Your task to perform on an android device: toggle improve location accuracy Image 0: 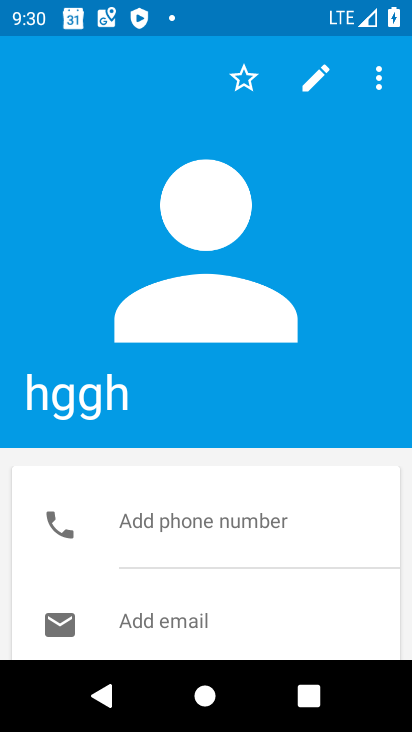
Step 0: press home button
Your task to perform on an android device: toggle improve location accuracy Image 1: 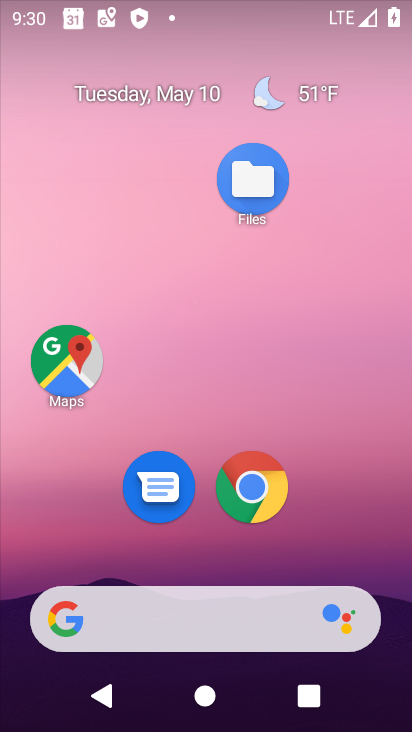
Step 1: drag from (208, 535) to (238, 111)
Your task to perform on an android device: toggle improve location accuracy Image 2: 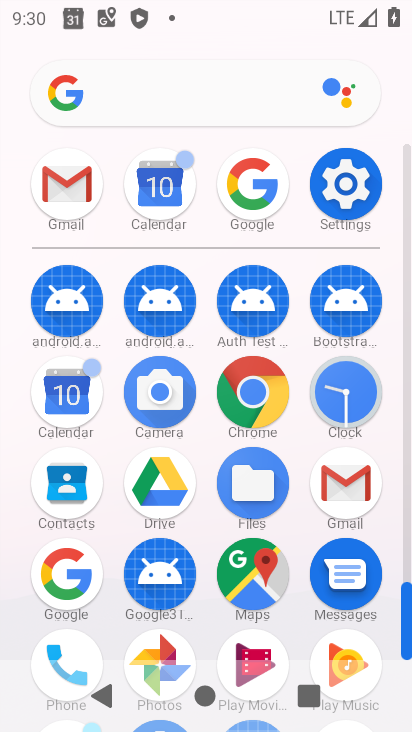
Step 2: click (341, 184)
Your task to perform on an android device: toggle improve location accuracy Image 3: 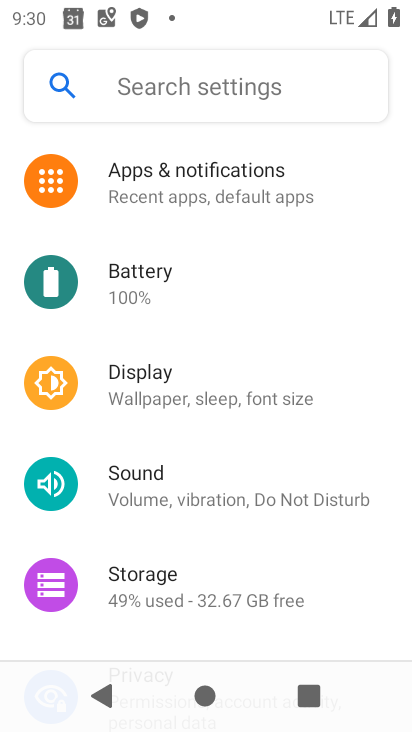
Step 3: drag from (211, 579) to (240, 192)
Your task to perform on an android device: toggle improve location accuracy Image 4: 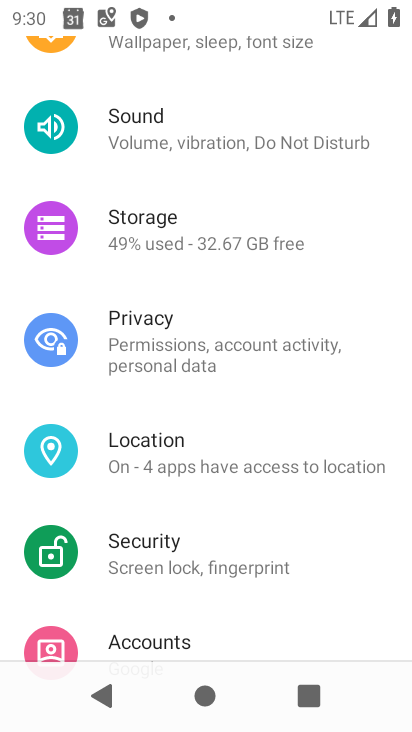
Step 4: click (182, 446)
Your task to perform on an android device: toggle improve location accuracy Image 5: 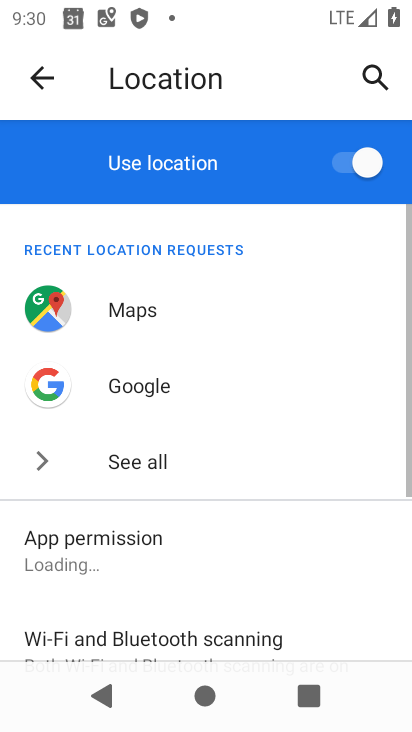
Step 5: drag from (215, 526) to (226, 194)
Your task to perform on an android device: toggle improve location accuracy Image 6: 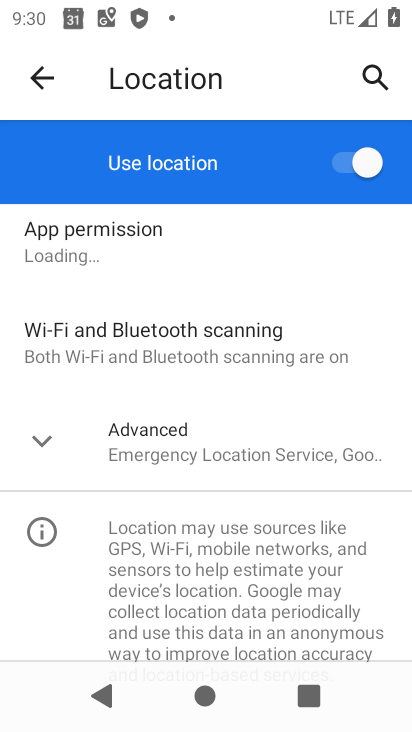
Step 6: click (148, 437)
Your task to perform on an android device: toggle improve location accuracy Image 7: 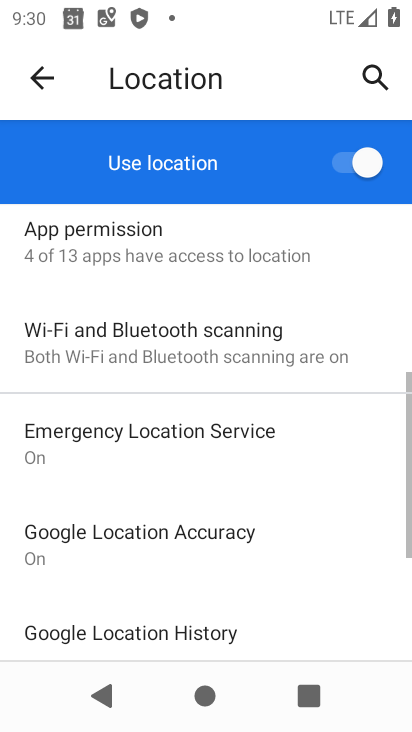
Step 7: drag from (254, 559) to (251, 340)
Your task to perform on an android device: toggle improve location accuracy Image 8: 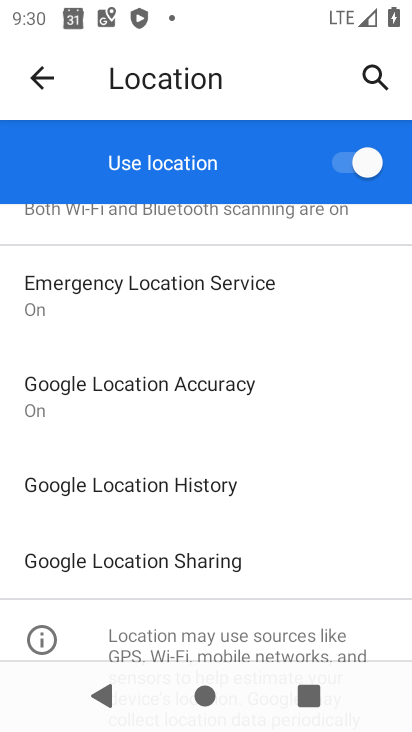
Step 8: click (149, 399)
Your task to perform on an android device: toggle improve location accuracy Image 9: 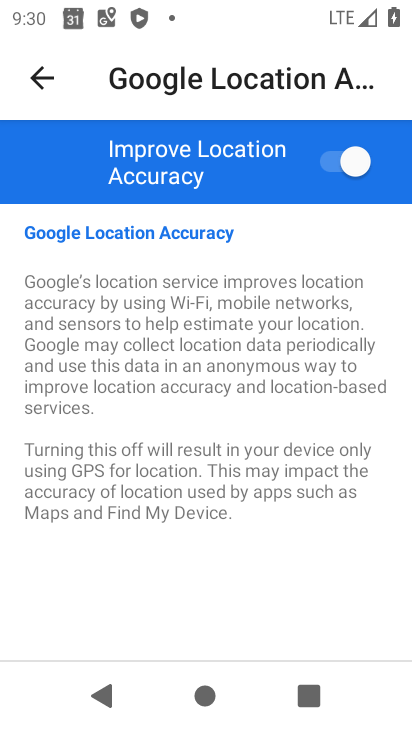
Step 9: click (342, 174)
Your task to perform on an android device: toggle improve location accuracy Image 10: 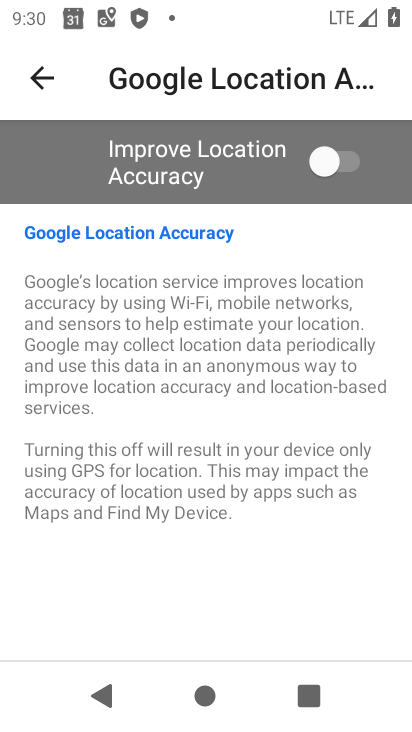
Step 10: task complete